Your task to perform on an android device: toggle data saver in the chrome app Image 0: 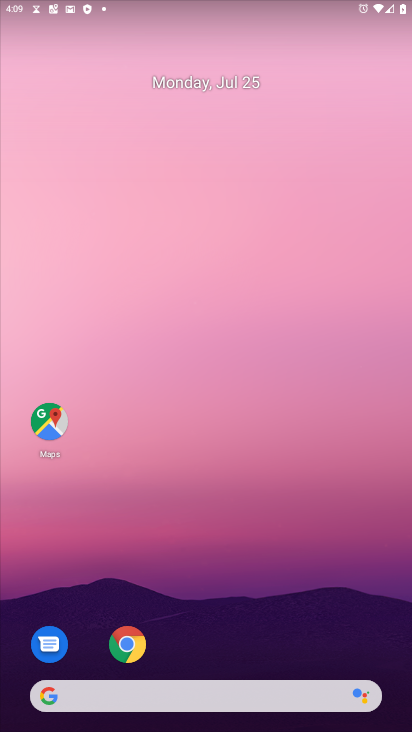
Step 0: press home button
Your task to perform on an android device: toggle data saver in the chrome app Image 1: 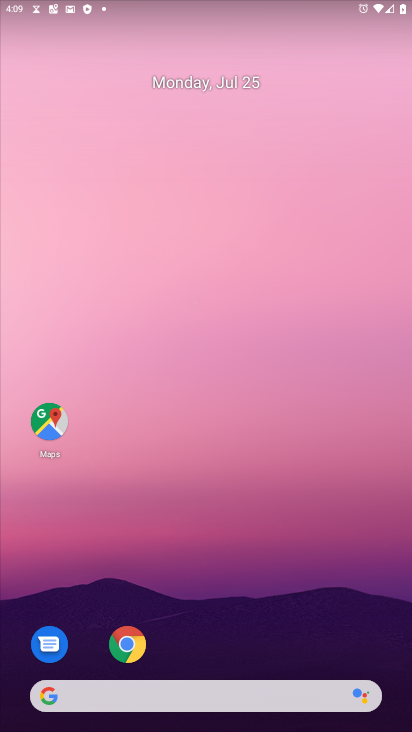
Step 1: click (126, 653)
Your task to perform on an android device: toggle data saver in the chrome app Image 2: 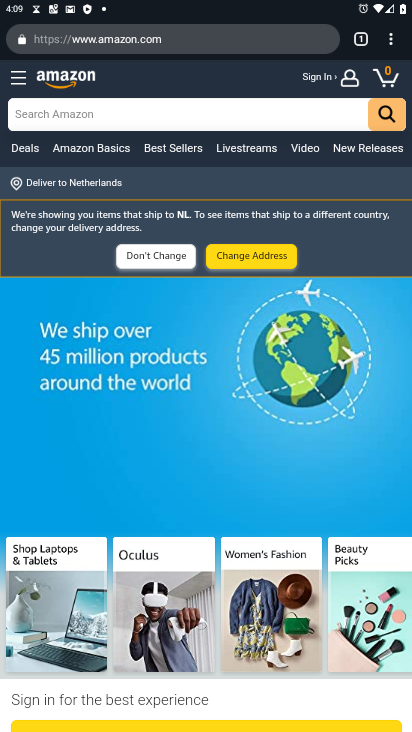
Step 2: drag from (388, 37) to (250, 472)
Your task to perform on an android device: toggle data saver in the chrome app Image 3: 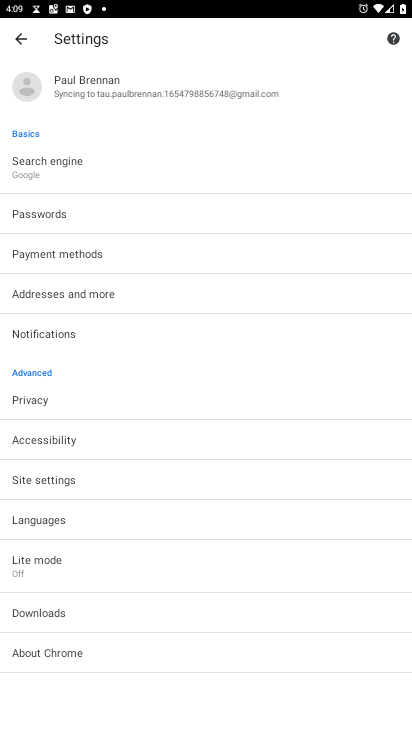
Step 3: click (31, 564)
Your task to perform on an android device: toggle data saver in the chrome app Image 4: 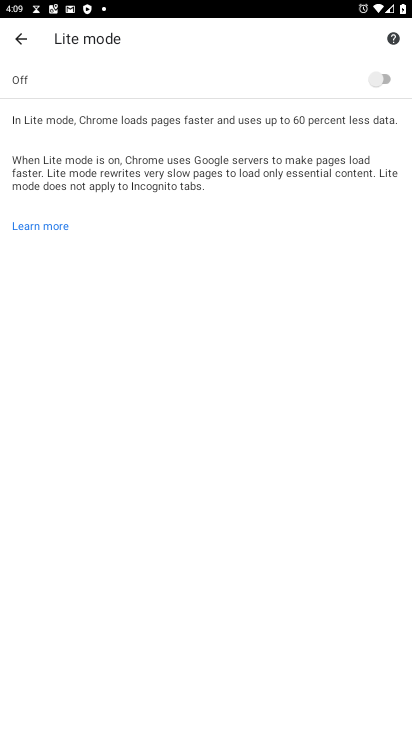
Step 4: click (384, 75)
Your task to perform on an android device: toggle data saver in the chrome app Image 5: 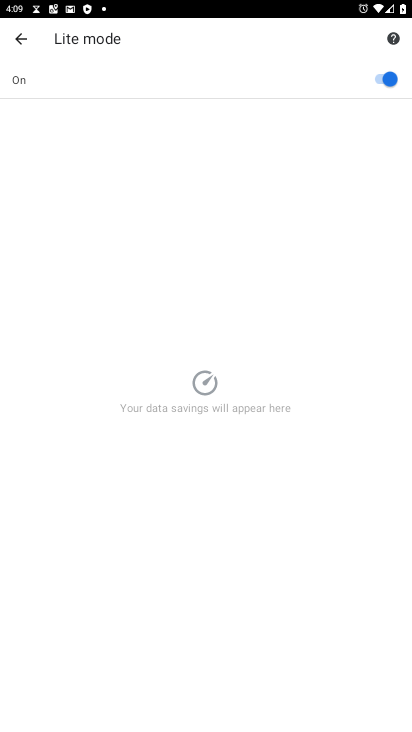
Step 5: task complete